Your task to perform on an android device: Go to location settings Image 0: 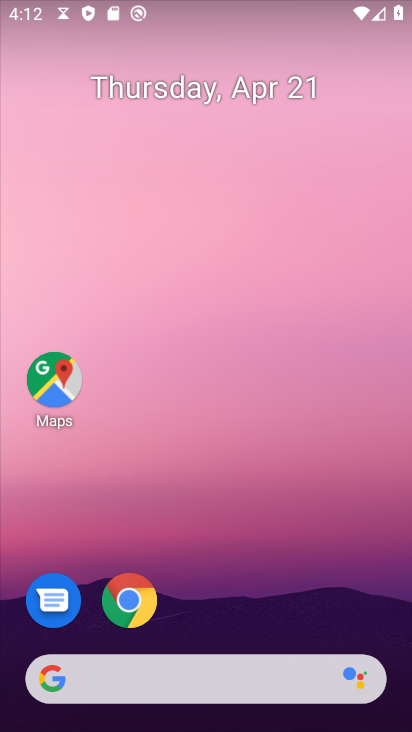
Step 0: drag from (238, 596) to (236, 65)
Your task to perform on an android device: Go to location settings Image 1: 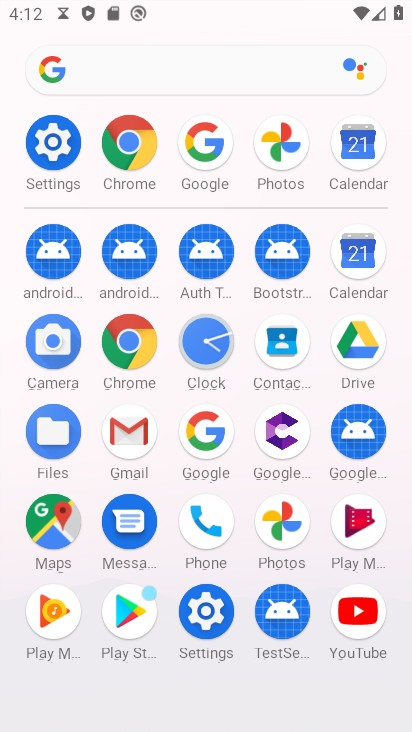
Step 1: click (55, 137)
Your task to perform on an android device: Go to location settings Image 2: 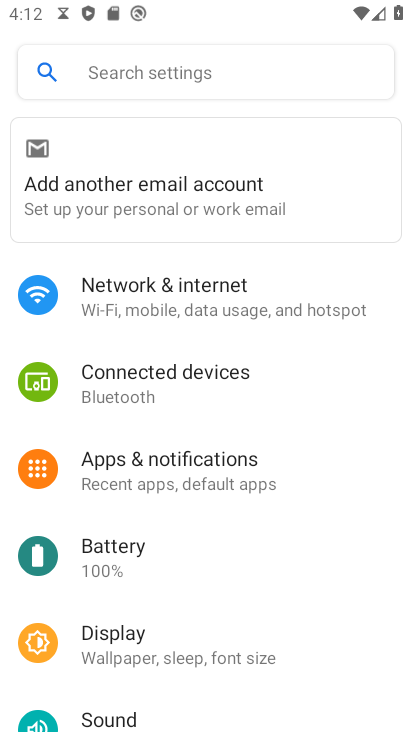
Step 2: drag from (169, 533) to (211, 317)
Your task to perform on an android device: Go to location settings Image 3: 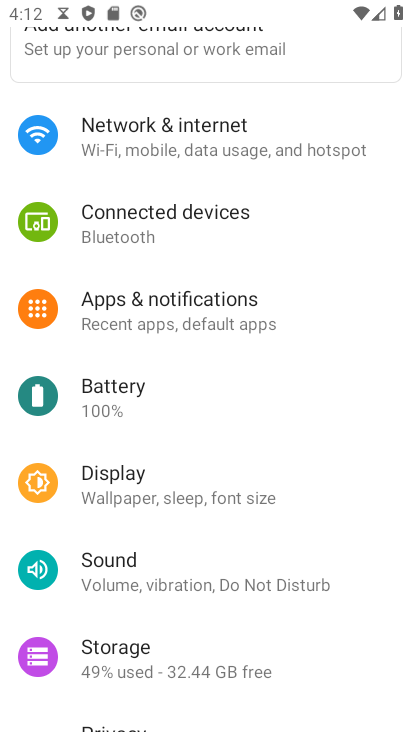
Step 3: drag from (173, 429) to (200, 269)
Your task to perform on an android device: Go to location settings Image 4: 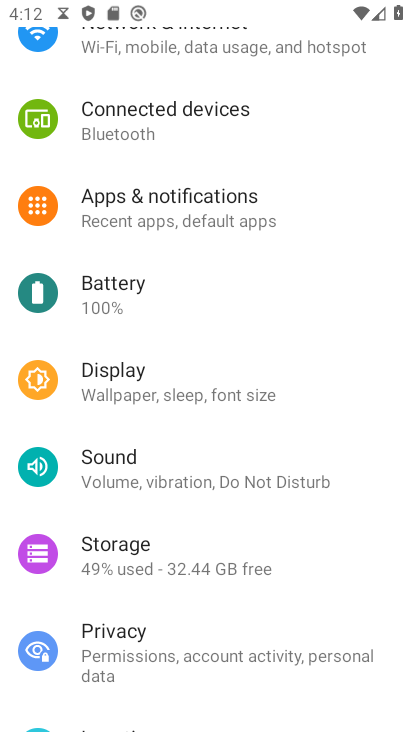
Step 4: drag from (166, 489) to (230, 325)
Your task to perform on an android device: Go to location settings Image 5: 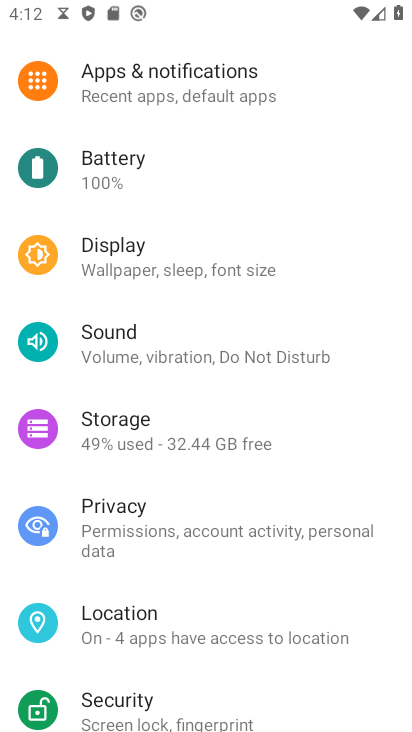
Step 5: drag from (186, 492) to (250, 297)
Your task to perform on an android device: Go to location settings Image 6: 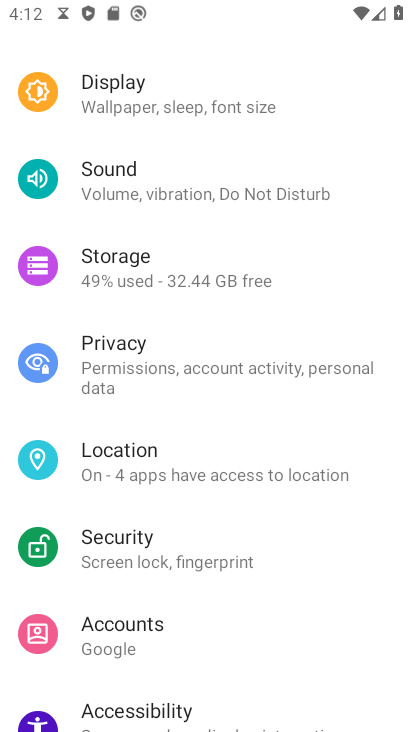
Step 6: click (158, 470)
Your task to perform on an android device: Go to location settings Image 7: 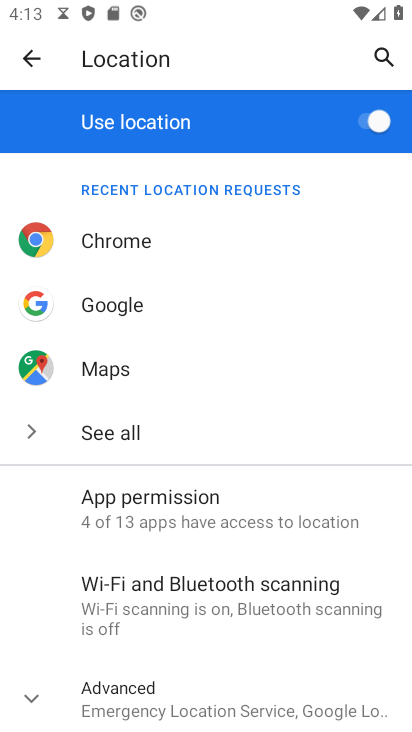
Step 7: task complete